Your task to perform on an android device: Open Reddit.com Image 0: 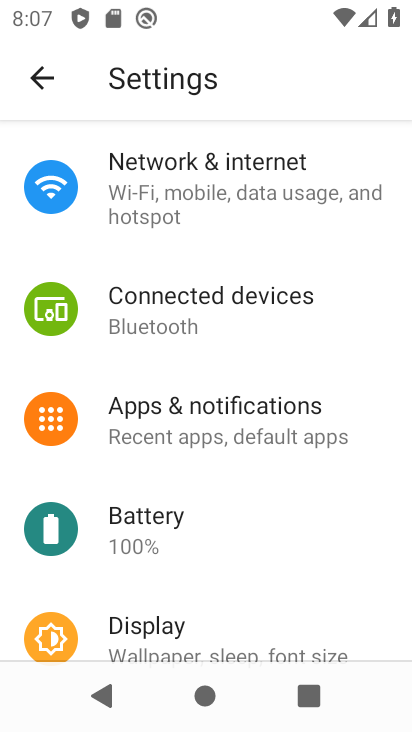
Step 0: press back button
Your task to perform on an android device: Open Reddit.com Image 1: 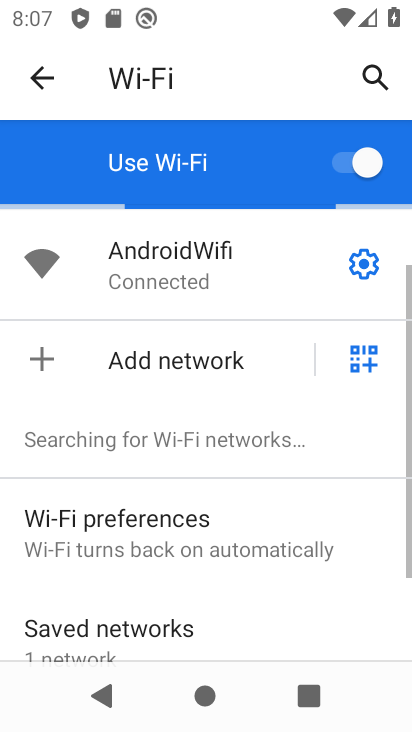
Step 1: press back button
Your task to perform on an android device: Open Reddit.com Image 2: 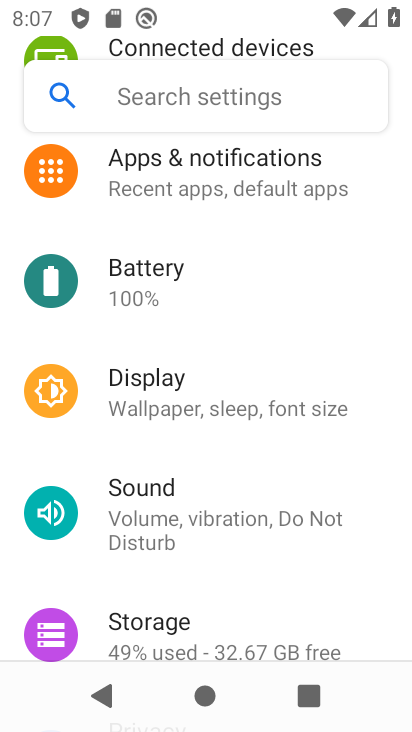
Step 2: press back button
Your task to perform on an android device: Open Reddit.com Image 3: 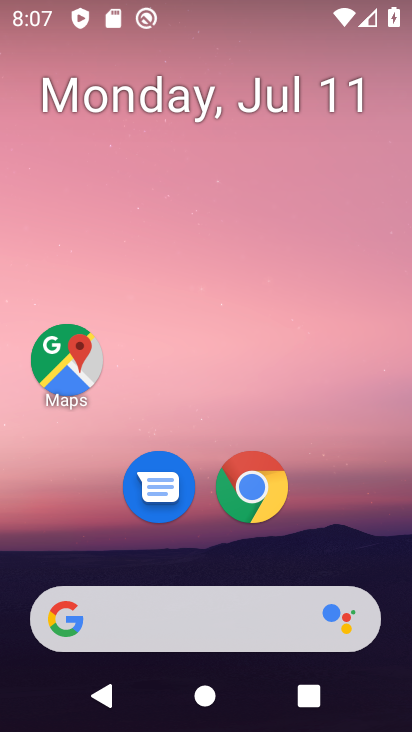
Step 3: click (255, 507)
Your task to perform on an android device: Open Reddit.com Image 4: 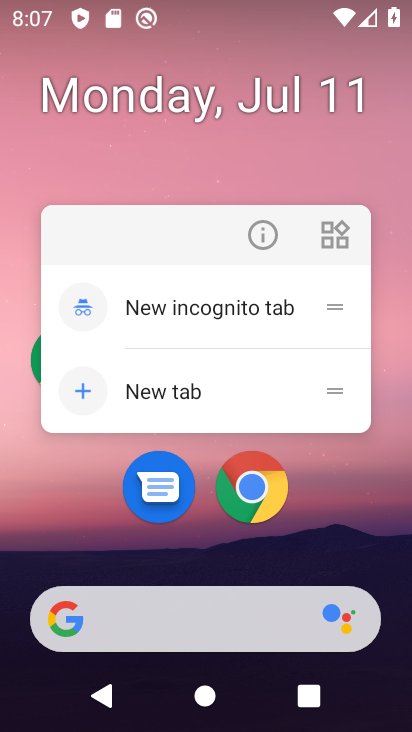
Step 4: click (259, 488)
Your task to perform on an android device: Open Reddit.com Image 5: 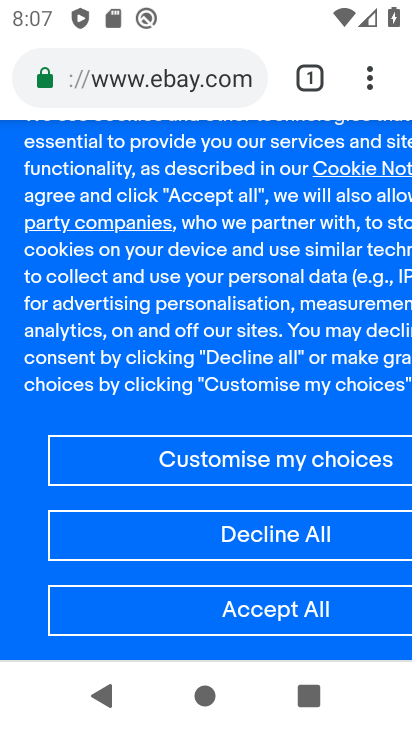
Step 5: click (301, 66)
Your task to perform on an android device: Open Reddit.com Image 6: 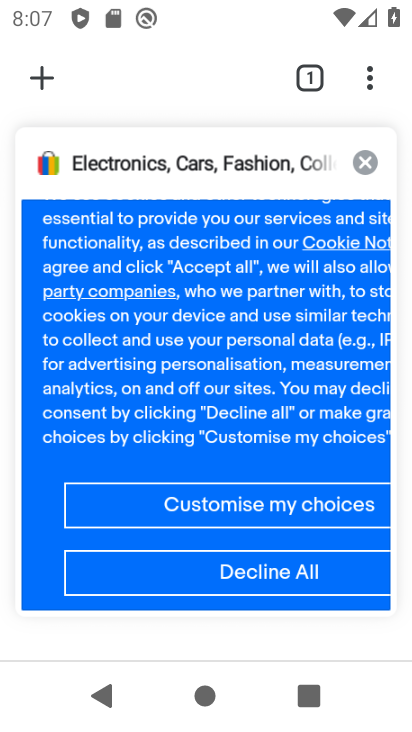
Step 6: click (35, 80)
Your task to perform on an android device: Open Reddit.com Image 7: 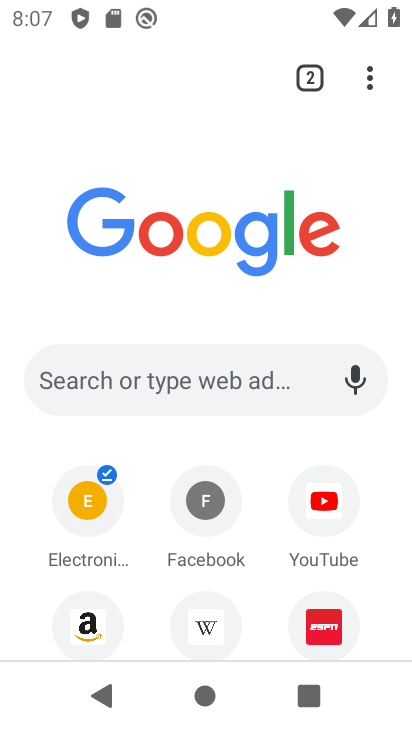
Step 7: click (103, 379)
Your task to perform on an android device: Open Reddit.com Image 8: 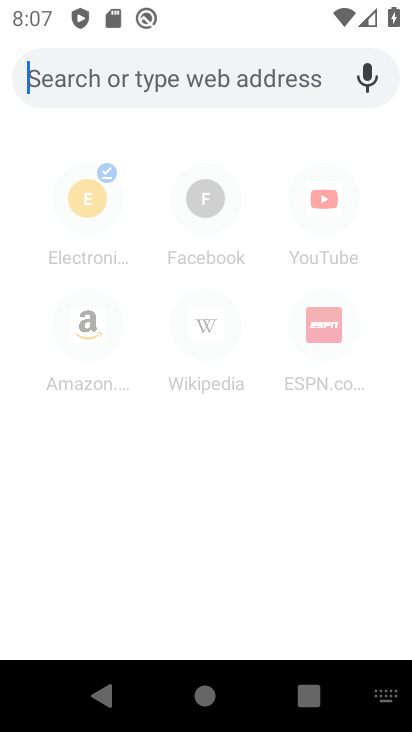
Step 8: type "reddit.com"
Your task to perform on an android device: Open Reddit.com Image 9: 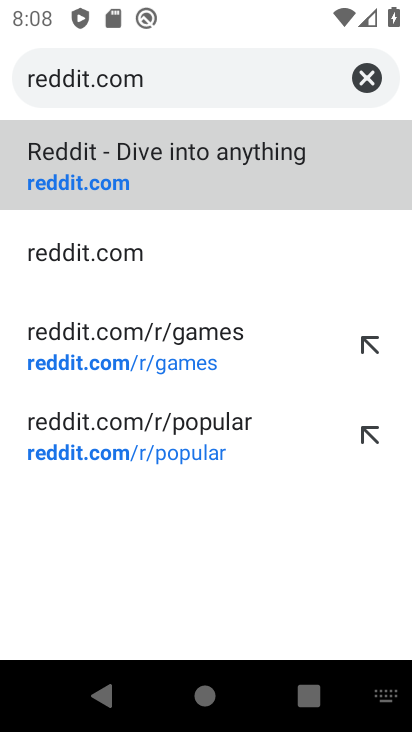
Step 9: click (126, 175)
Your task to perform on an android device: Open Reddit.com Image 10: 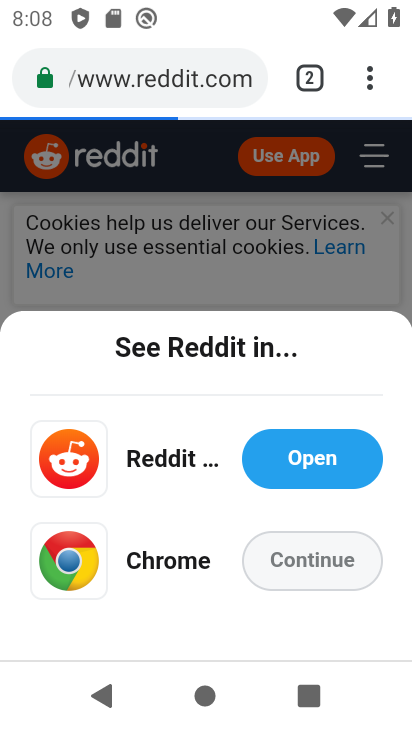
Step 10: task complete